Your task to perform on an android device: Is it going to rain this weekend? Image 0: 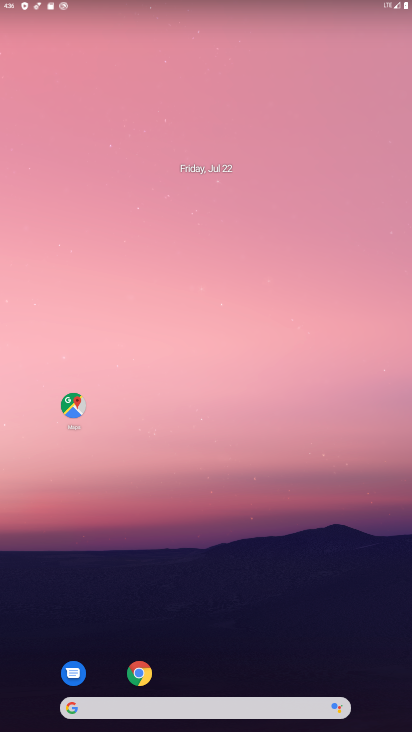
Step 0: click (78, 706)
Your task to perform on an android device: Is it going to rain this weekend? Image 1: 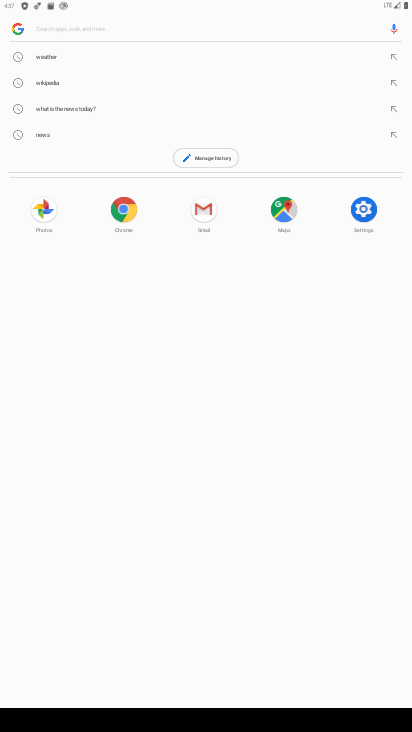
Step 1: type "Is it going to rain this weekend?"
Your task to perform on an android device: Is it going to rain this weekend? Image 2: 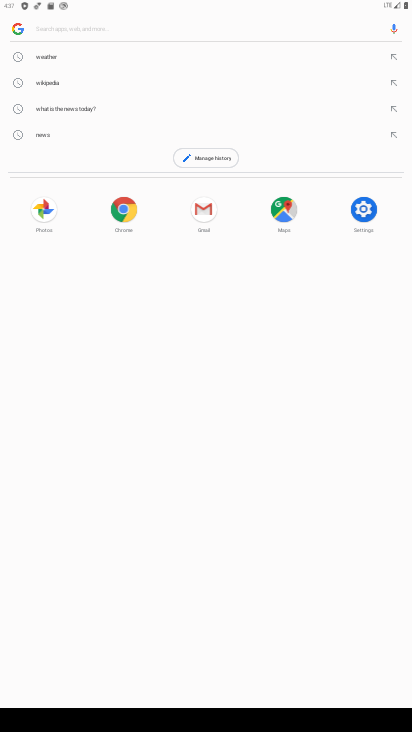
Step 2: click (63, 23)
Your task to perform on an android device: Is it going to rain this weekend? Image 3: 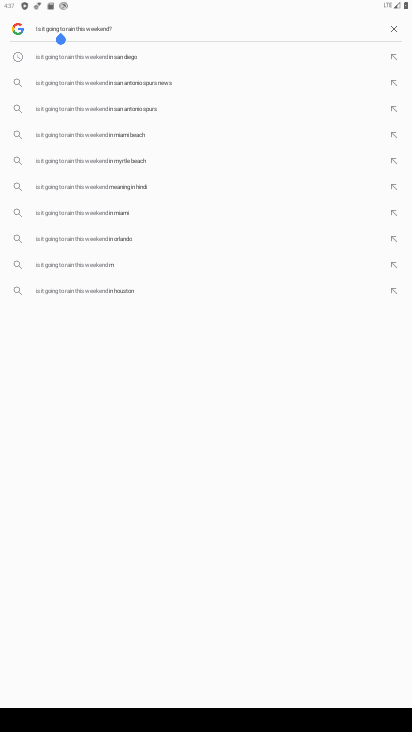
Step 3: press enter
Your task to perform on an android device: Is it going to rain this weekend? Image 4: 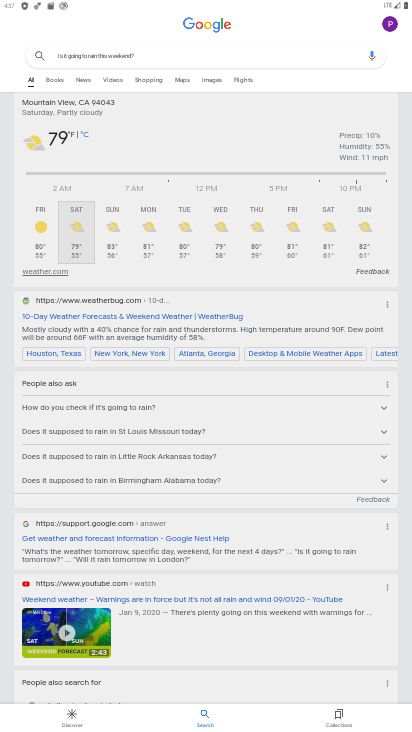
Step 4: task complete